Your task to perform on an android device: turn notification dots on Image 0: 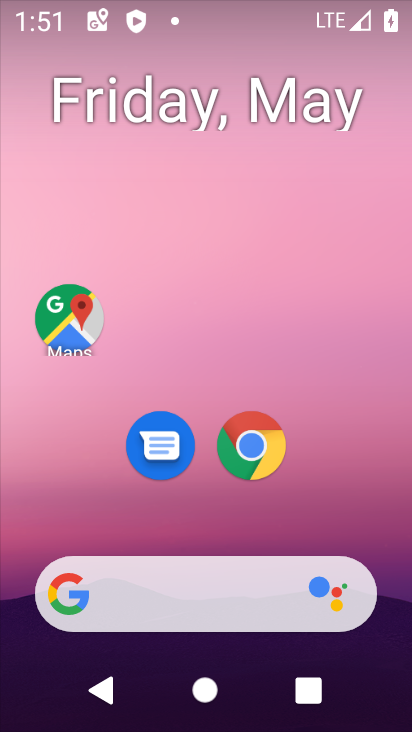
Step 0: drag from (211, 537) to (248, 71)
Your task to perform on an android device: turn notification dots on Image 1: 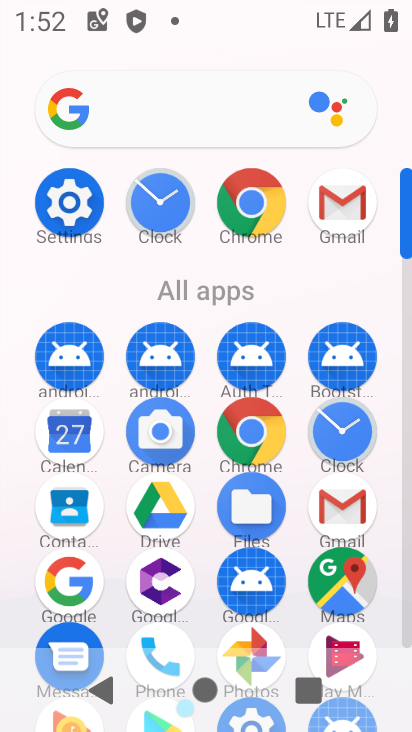
Step 1: click (67, 194)
Your task to perform on an android device: turn notification dots on Image 2: 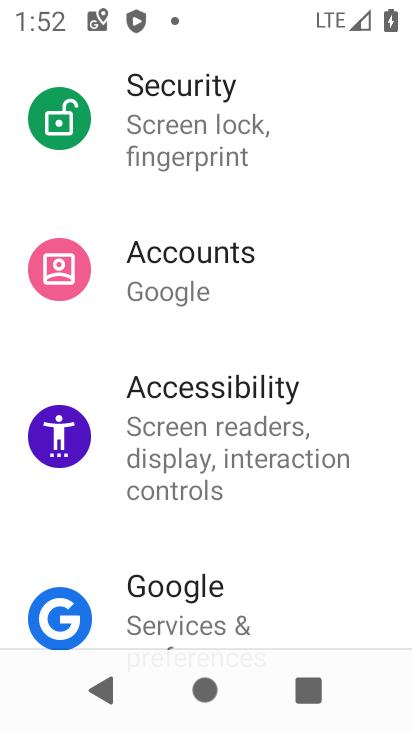
Step 2: drag from (195, 248) to (186, 649)
Your task to perform on an android device: turn notification dots on Image 3: 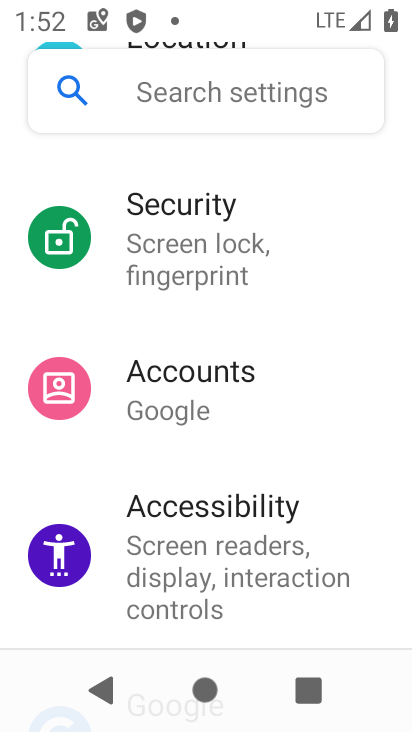
Step 3: drag from (119, 155) to (127, 635)
Your task to perform on an android device: turn notification dots on Image 4: 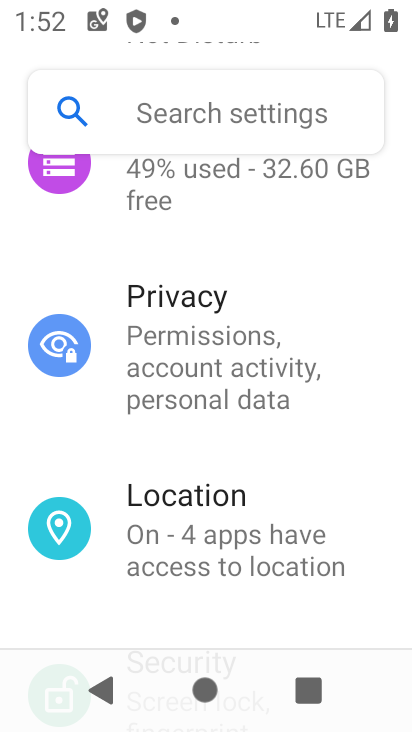
Step 4: drag from (112, 185) to (108, 677)
Your task to perform on an android device: turn notification dots on Image 5: 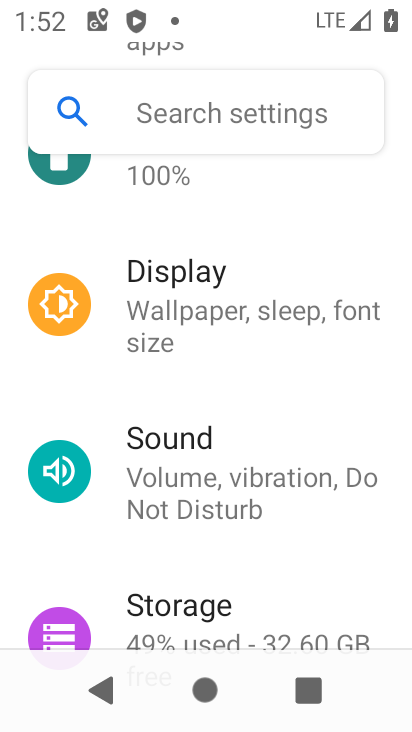
Step 5: drag from (118, 170) to (99, 636)
Your task to perform on an android device: turn notification dots on Image 6: 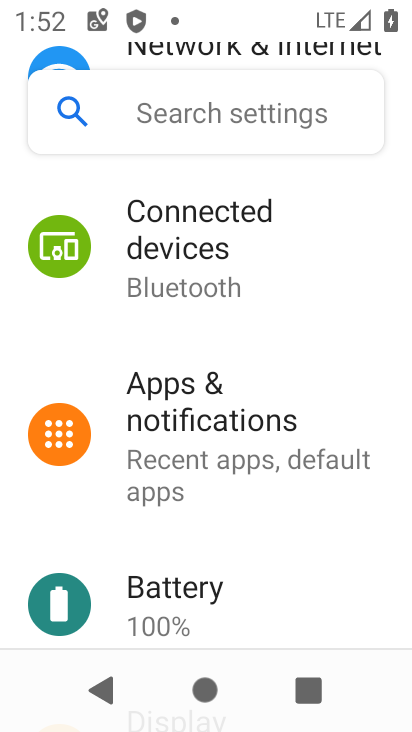
Step 6: click (108, 434)
Your task to perform on an android device: turn notification dots on Image 7: 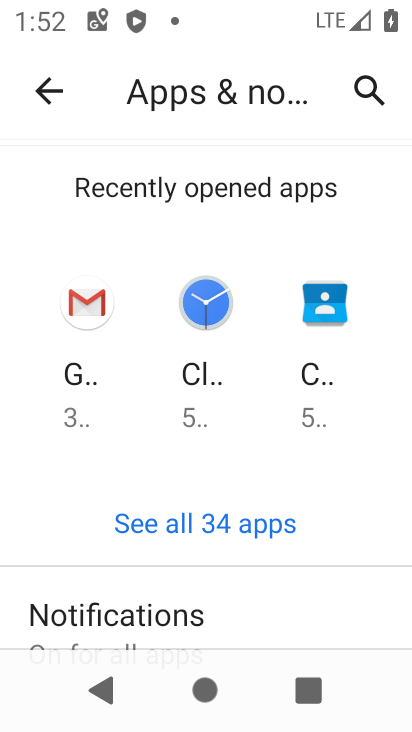
Step 7: click (237, 616)
Your task to perform on an android device: turn notification dots on Image 8: 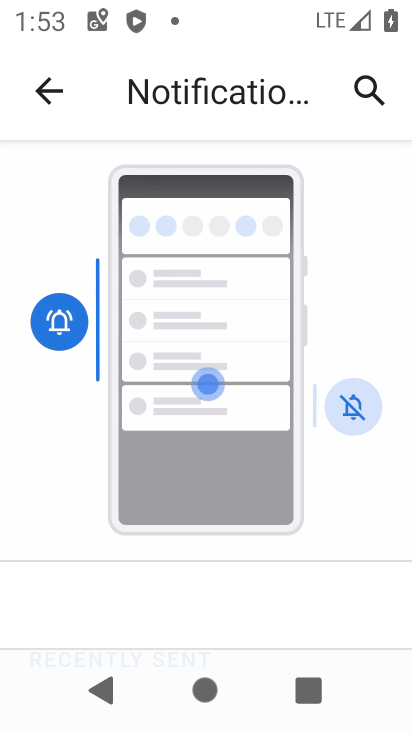
Step 8: drag from (205, 622) to (281, 105)
Your task to perform on an android device: turn notification dots on Image 9: 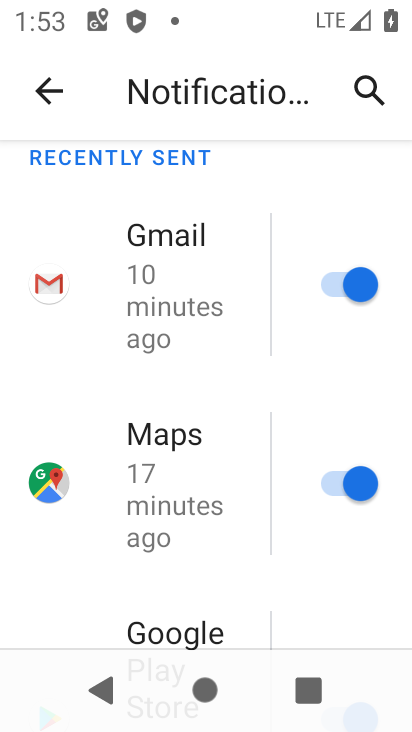
Step 9: drag from (242, 594) to (300, 1)
Your task to perform on an android device: turn notification dots on Image 10: 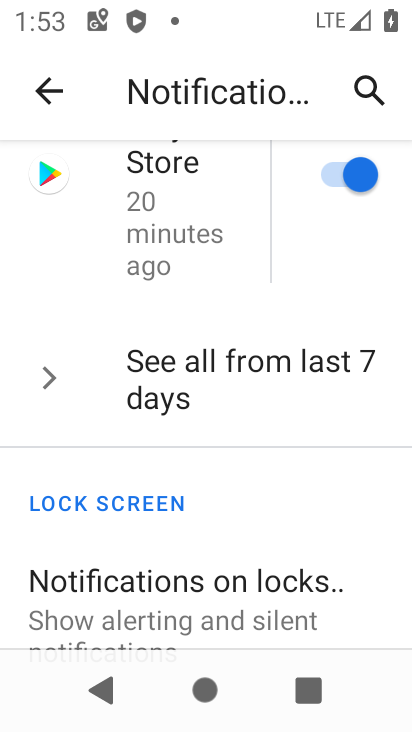
Step 10: drag from (230, 602) to (305, 101)
Your task to perform on an android device: turn notification dots on Image 11: 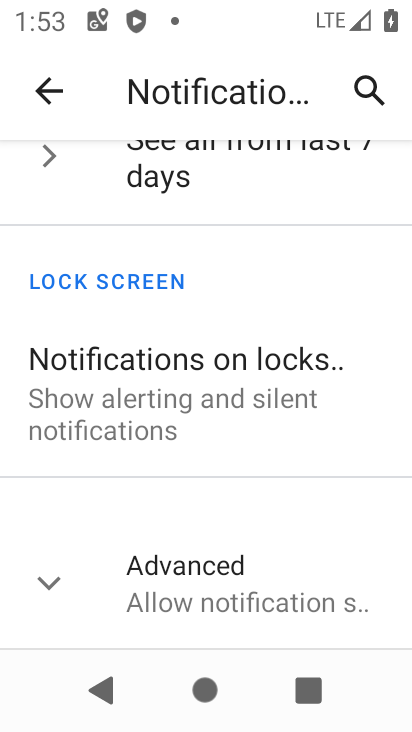
Step 11: click (45, 577)
Your task to perform on an android device: turn notification dots on Image 12: 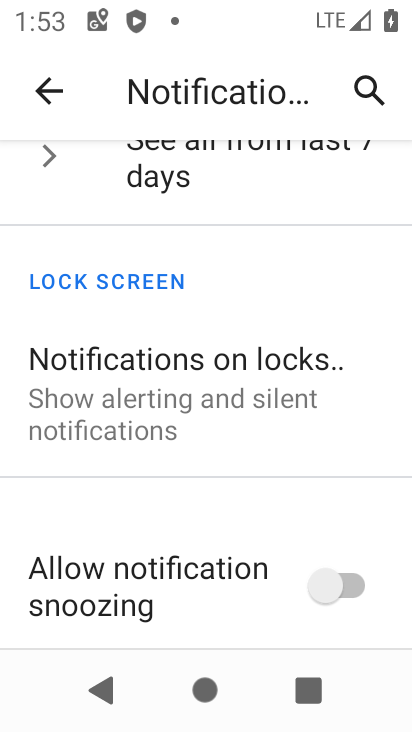
Step 12: task complete